Your task to perform on an android device: install app "Nova Launcher" Image 0: 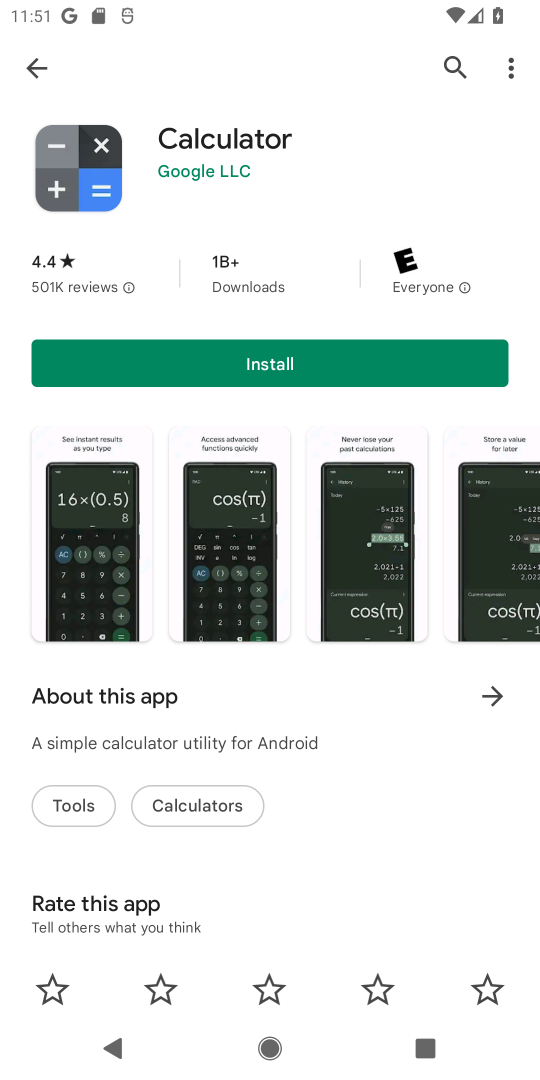
Step 0: click (440, 59)
Your task to perform on an android device: install app "Nova Launcher" Image 1: 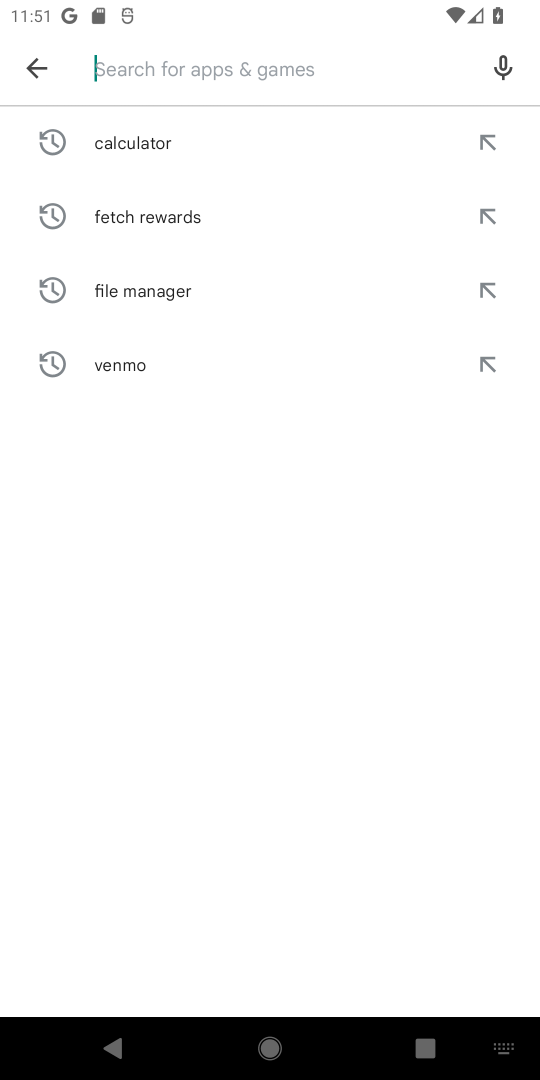
Step 1: type "Nova Launcher"
Your task to perform on an android device: install app "Nova Launcher" Image 2: 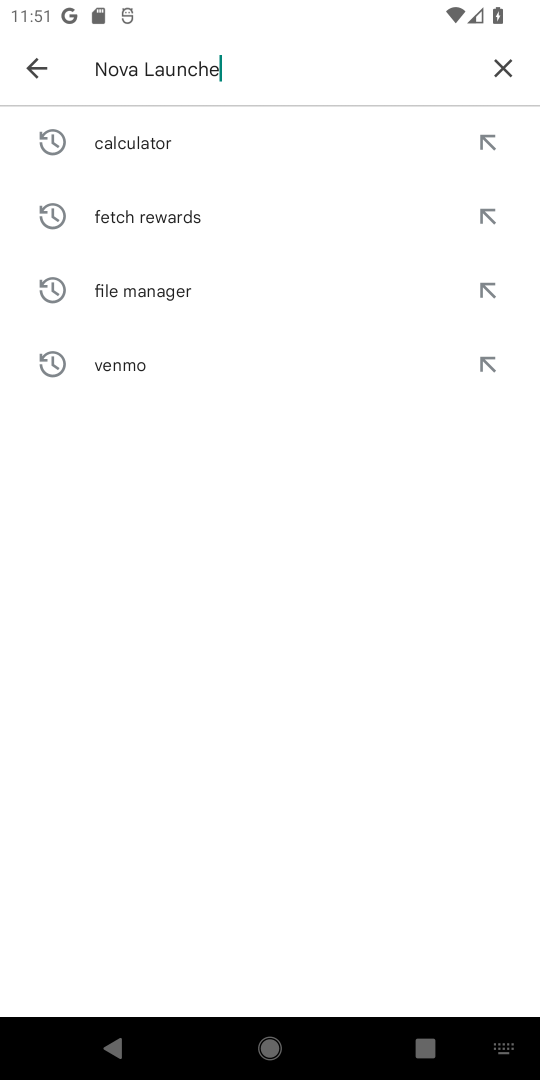
Step 2: type ""
Your task to perform on an android device: install app "Nova Launcher" Image 3: 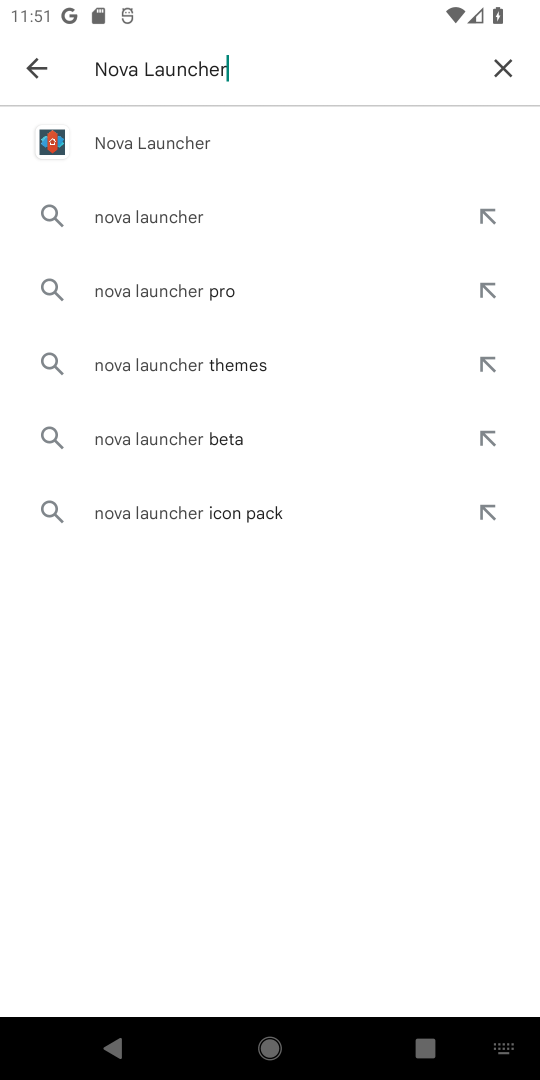
Step 3: click (157, 142)
Your task to perform on an android device: install app "Nova Launcher" Image 4: 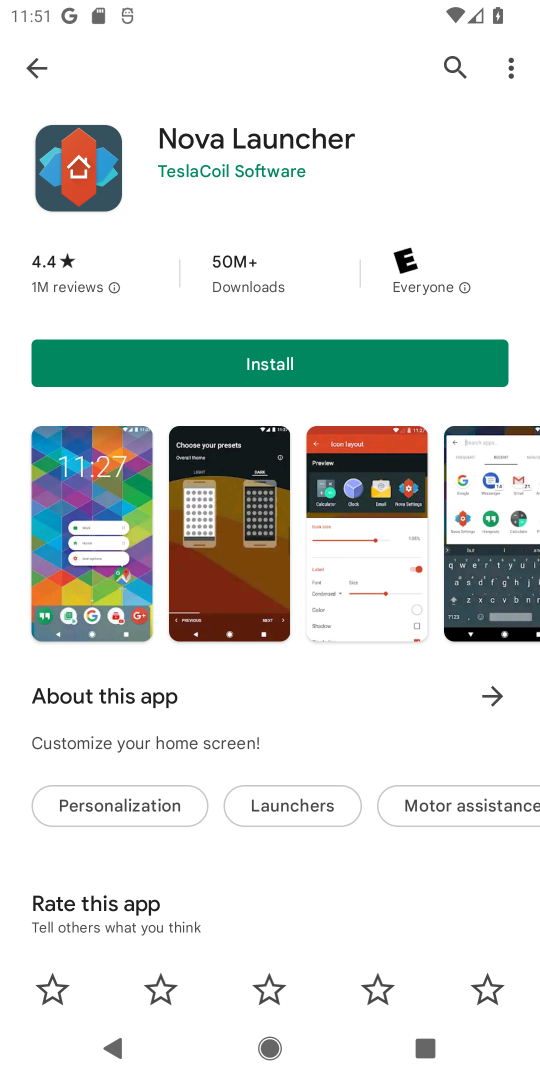
Step 4: click (288, 362)
Your task to perform on an android device: install app "Nova Launcher" Image 5: 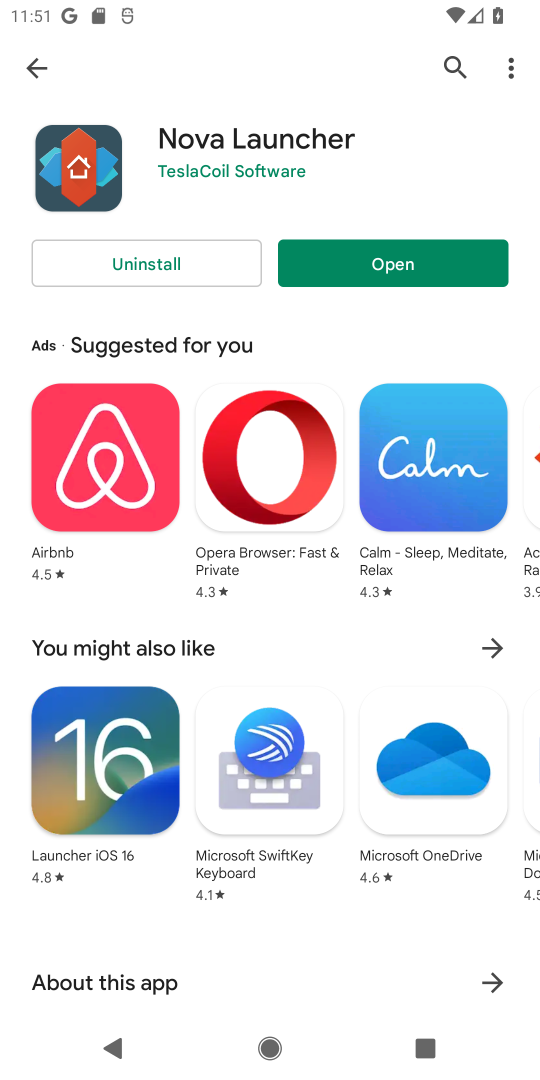
Step 5: task complete